Your task to perform on an android device: change notification settings in the gmail app Image 0: 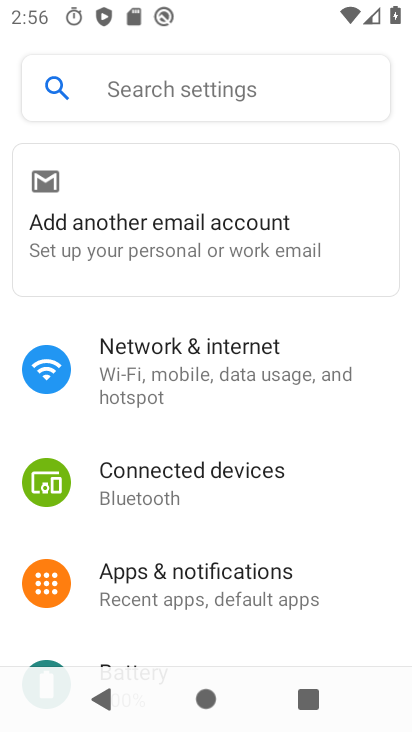
Step 0: press home button
Your task to perform on an android device: change notification settings in the gmail app Image 1: 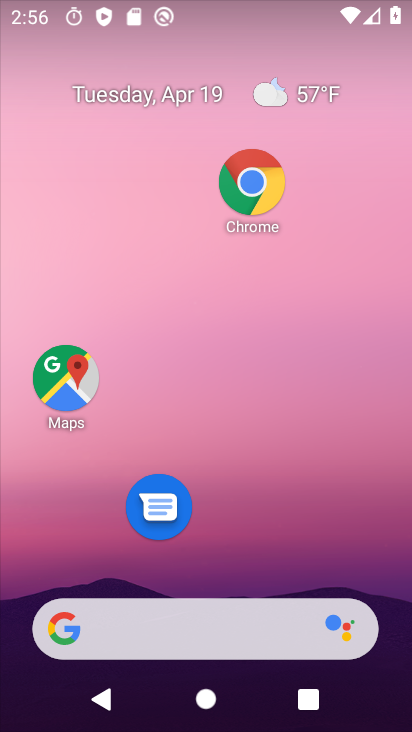
Step 1: drag from (245, 380) to (246, 261)
Your task to perform on an android device: change notification settings in the gmail app Image 2: 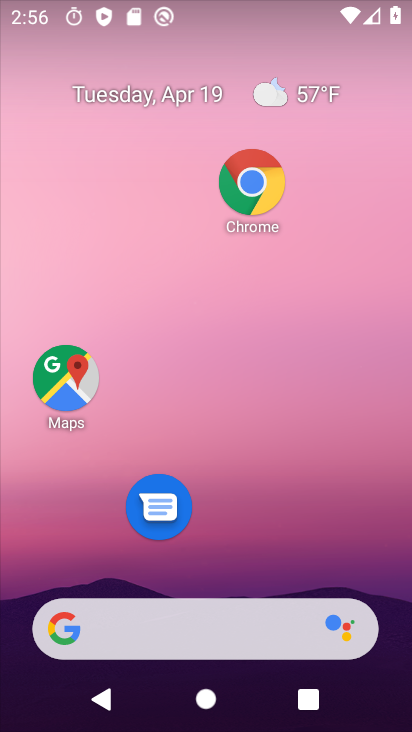
Step 2: drag from (264, 426) to (298, 89)
Your task to perform on an android device: change notification settings in the gmail app Image 3: 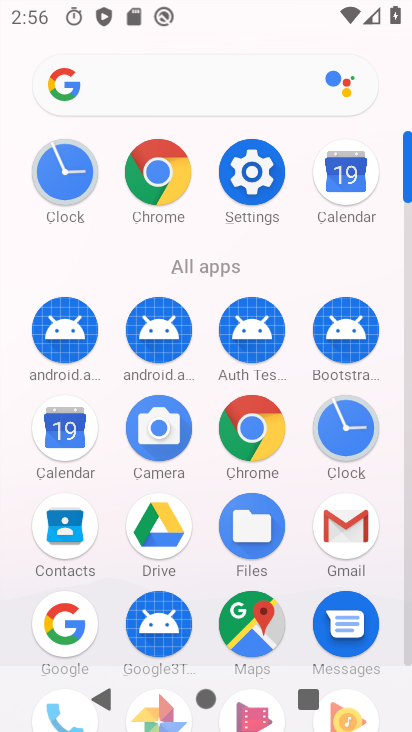
Step 3: click (347, 525)
Your task to perform on an android device: change notification settings in the gmail app Image 4: 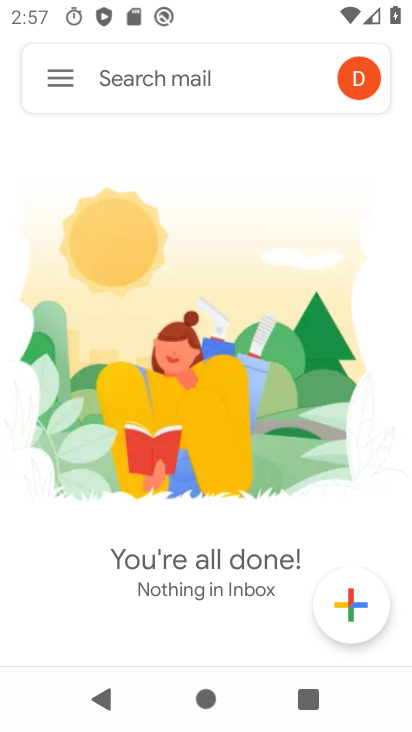
Step 4: click (74, 83)
Your task to perform on an android device: change notification settings in the gmail app Image 5: 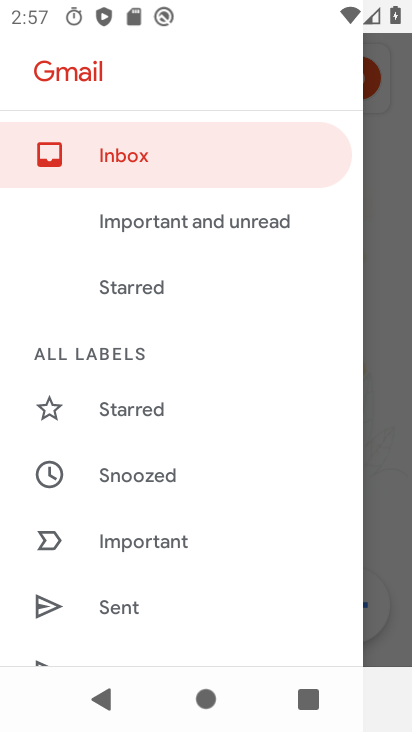
Step 5: drag from (176, 565) to (126, 154)
Your task to perform on an android device: change notification settings in the gmail app Image 6: 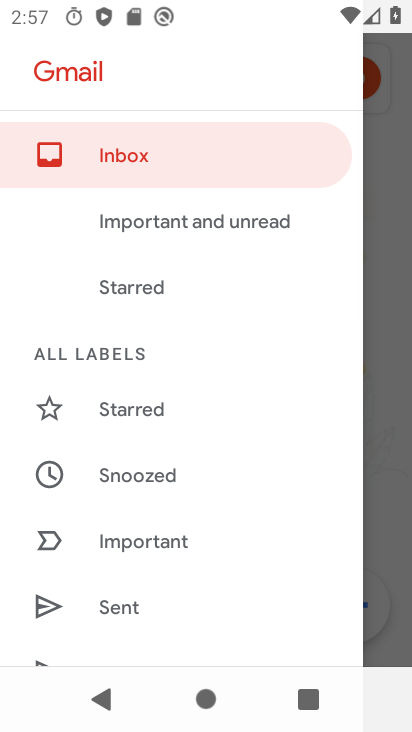
Step 6: drag from (168, 558) to (199, 165)
Your task to perform on an android device: change notification settings in the gmail app Image 7: 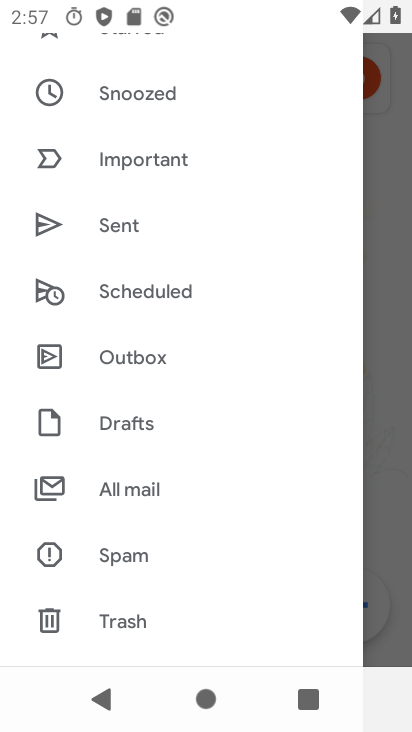
Step 7: drag from (185, 502) to (201, 190)
Your task to perform on an android device: change notification settings in the gmail app Image 8: 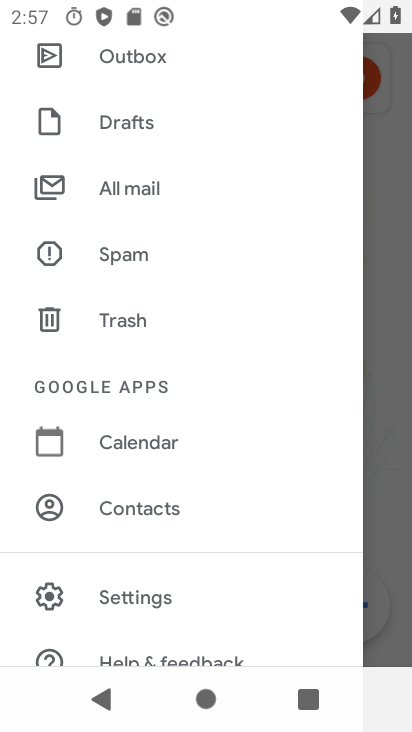
Step 8: click (154, 602)
Your task to perform on an android device: change notification settings in the gmail app Image 9: 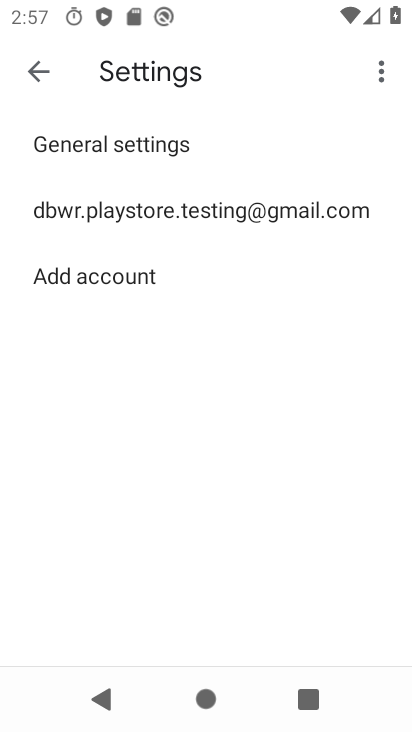
Step 9: click (172, 146)
Your task to perform on an android device: change notification settings in the gmail app Image 10: 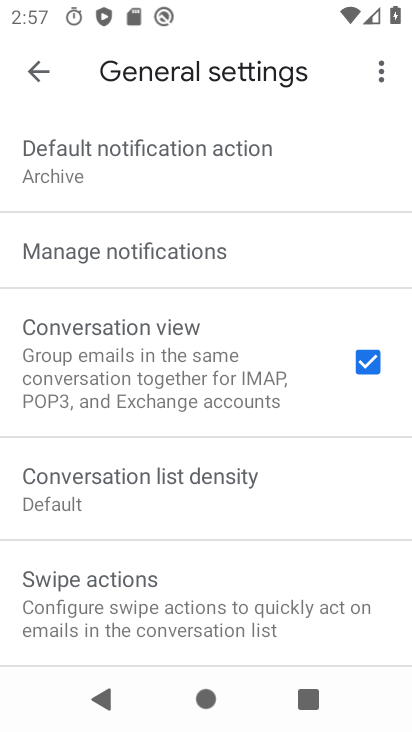
Step 10: click (288, 258)
Your task to perform on an android device: change notification settings in the gmail app Image 11: 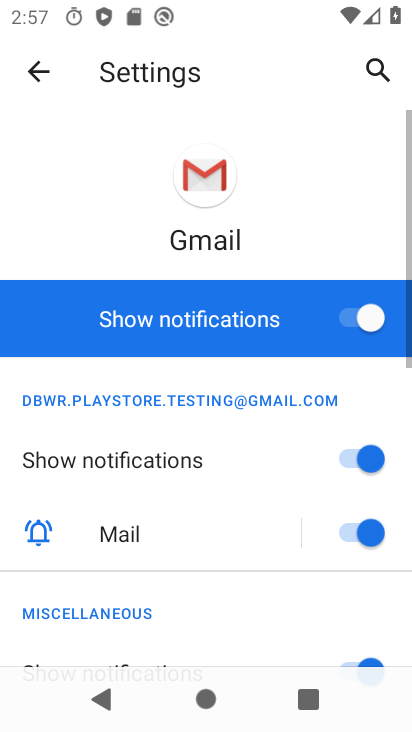
Step 11: click (356, 311)
Your task to perform on an android device: change notification settings in the gmail app Image 12: 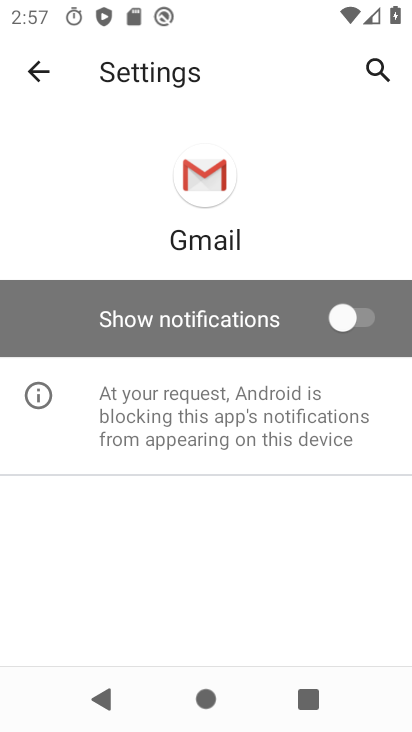
Step 12: task complete